Your task to perform on an android device: Search for the new Steph Curry shoes on Nike.com Image 0: 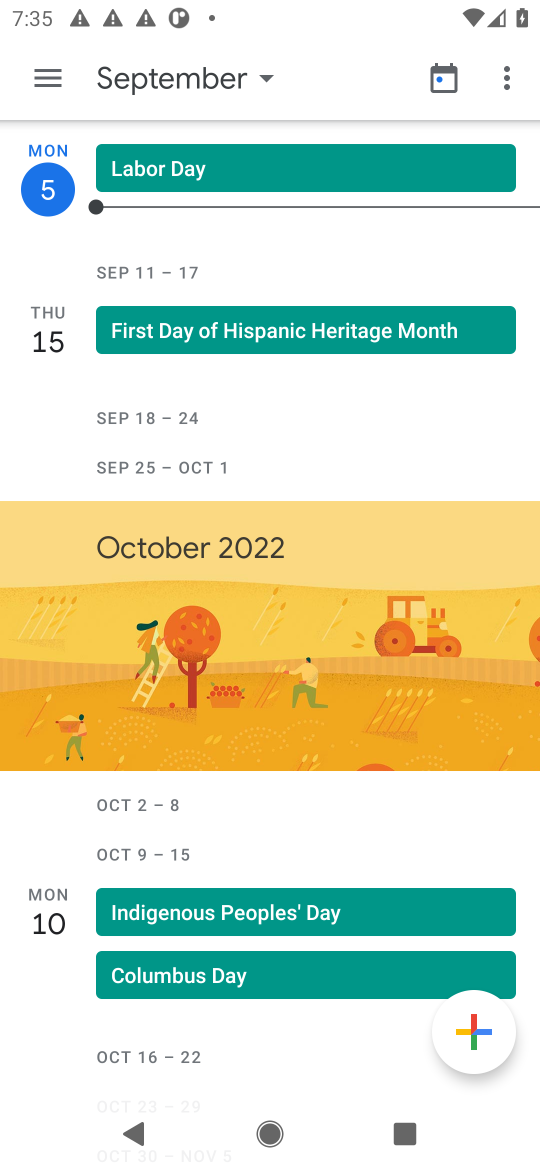
Step 0: press home button
Your task to perform on an android device: Search for the new Steph Curry shoes on Nike.com Image 1: 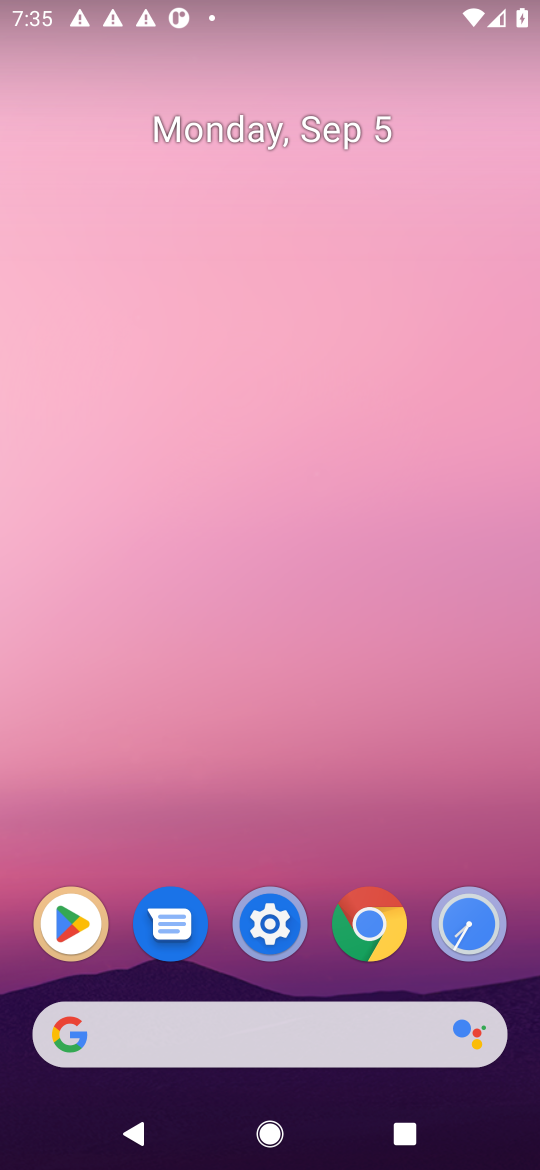
Step 1: click (388, 1032)
Your task to perform on an android device: Search for the new Steph Curry shoes on Nike.com Image 2: 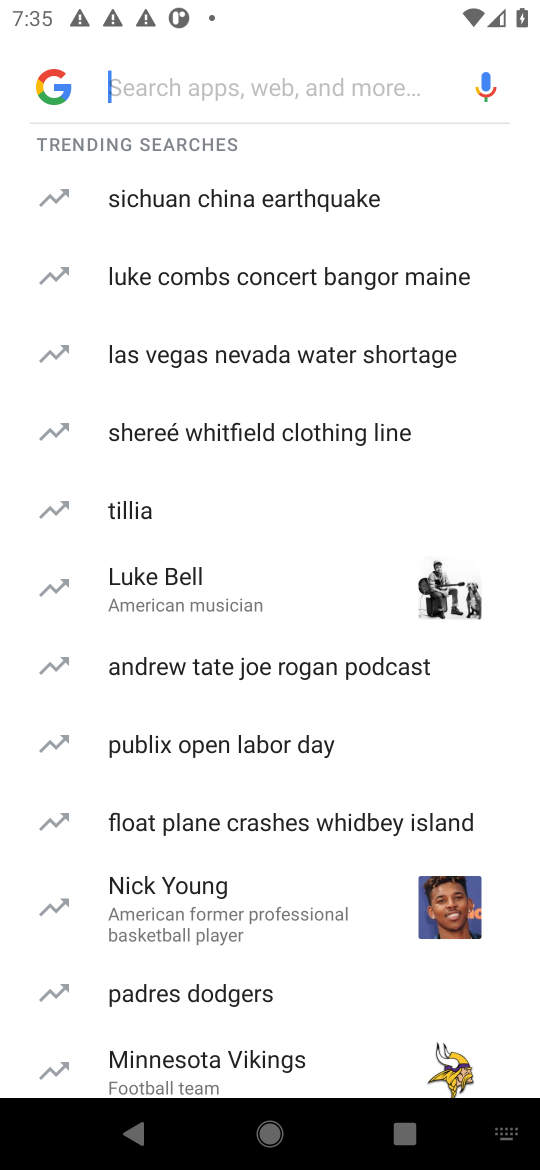
Step 2: type "nike.com"
Your task to perform on an android device: Search for the new Steph Curry shoes on Nike.com Image 3: 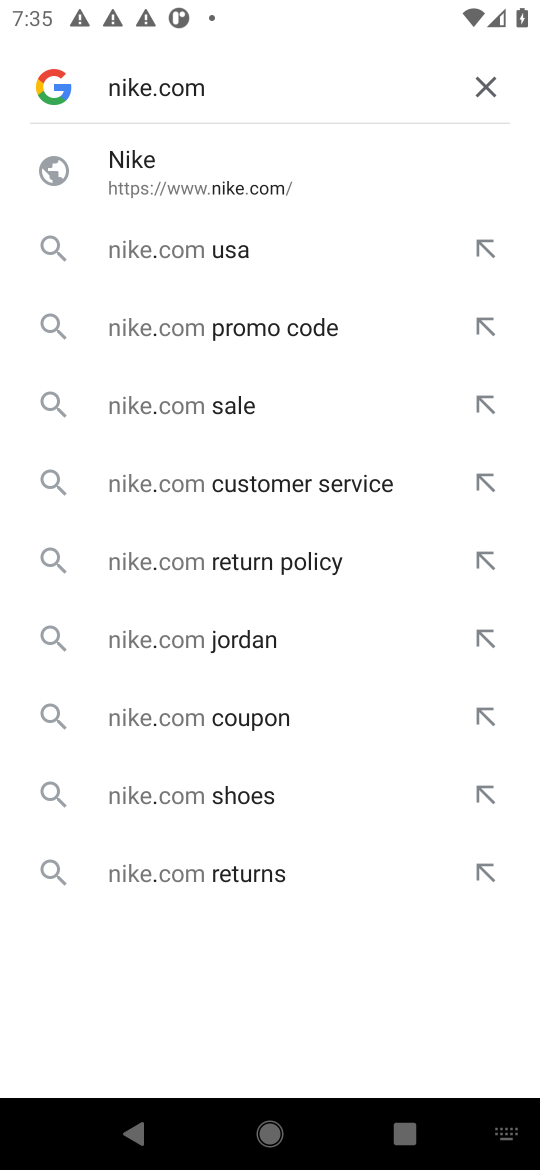
Step 3: press enter
Your task to perform on an android device: Search for the new Steph Curry shoes on Nike.com Image 4: 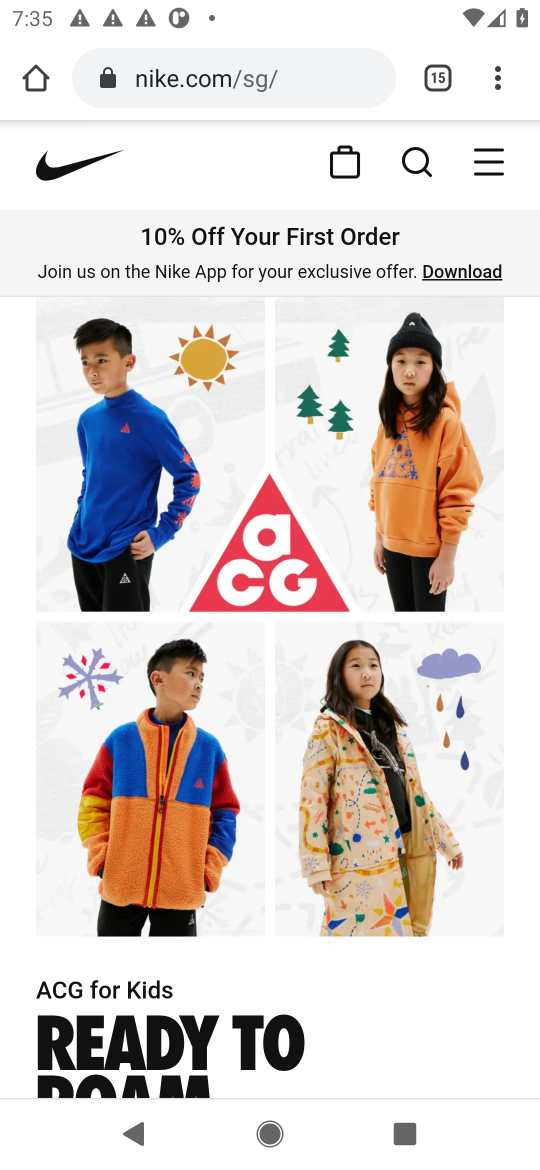
Step 4: click (405, 156)
Your task to perform on an android device: Search for the new Steph Curry shoes on Nike.com Image 5: 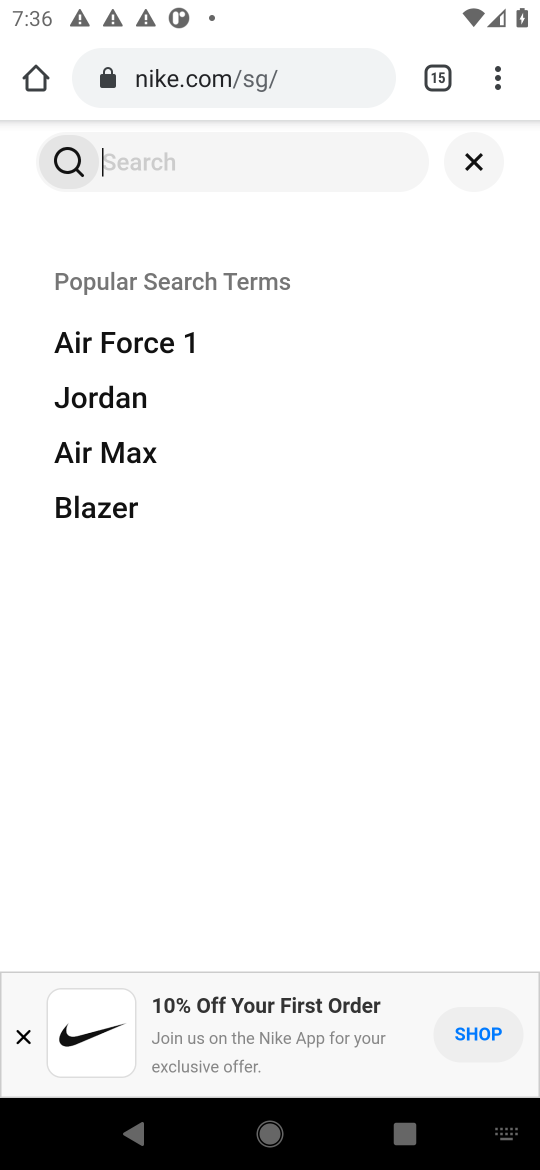
Step 5: press enter
Your task to perform on an android device: Search for the new Steph Curry shoes on Nike.com Image 6: 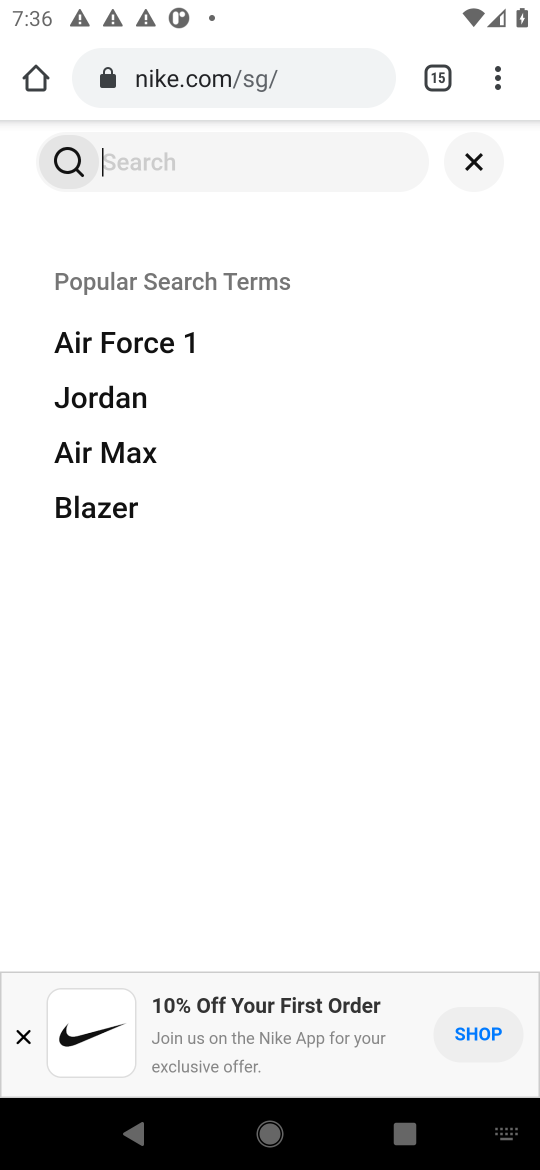
Step 6: type "new steph curry shoes"
Your task to perform on an android device: Search for the new Steph Curry shoes on Nike.com Image 7: 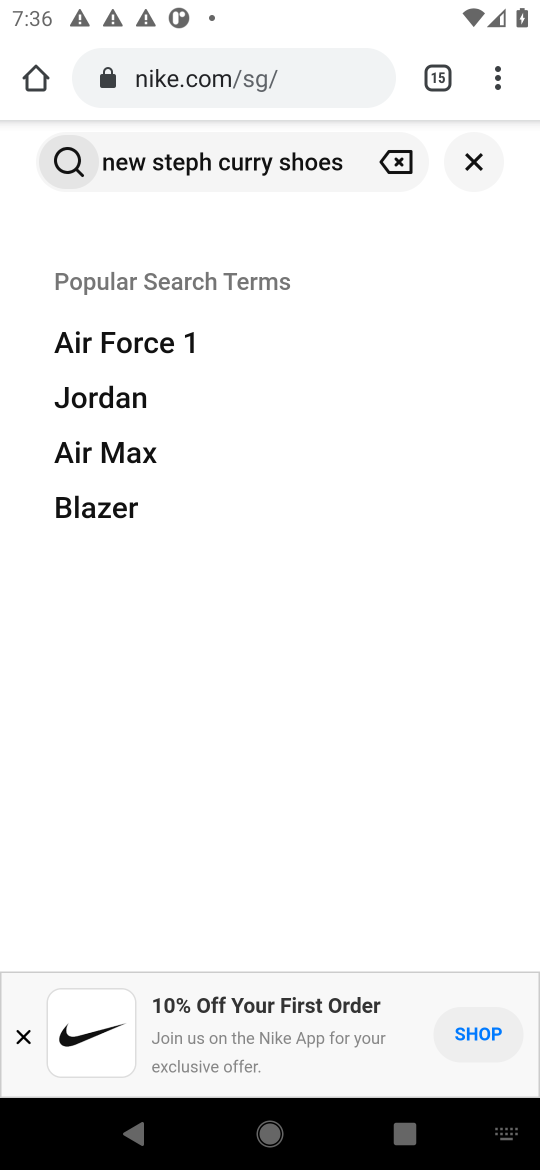
Step 7: click (70, 149)
Your task to perform on an android device: Search for the new Steph Curry shoes on Nike.com Image 8: 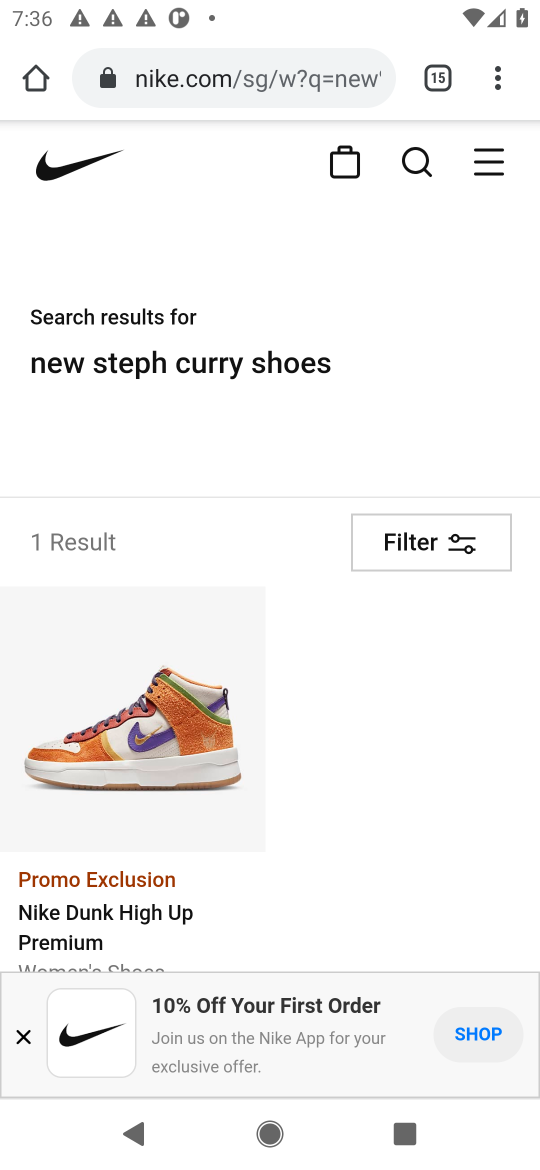
Step 8: task complete